Your task to perform on an android device: What is the recent news? Image 0: 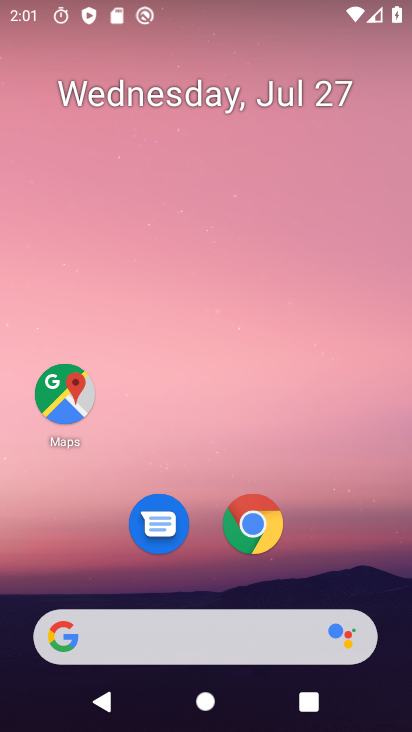
Step 0: drag from (220, 484) to (267, 27)
Your task to perform on an android device: What is the recent news? Image 1: 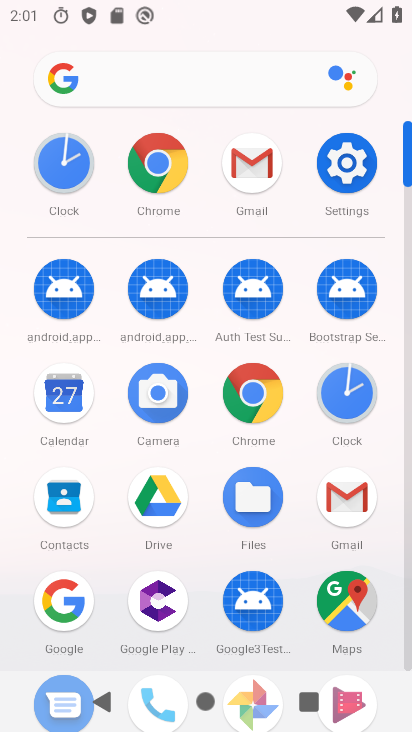
Step 1: press home button
Your task to perform on an android device: What is the recent news? Image 2: 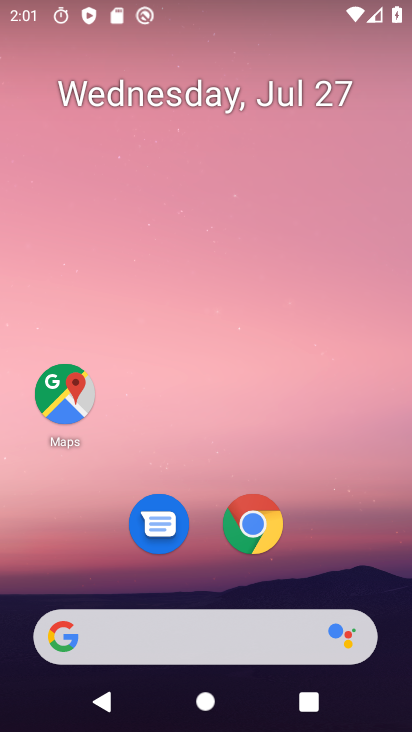
Step 2: click (190, 641)
Your task to perform on an android device: What is the recent news? Image 3: 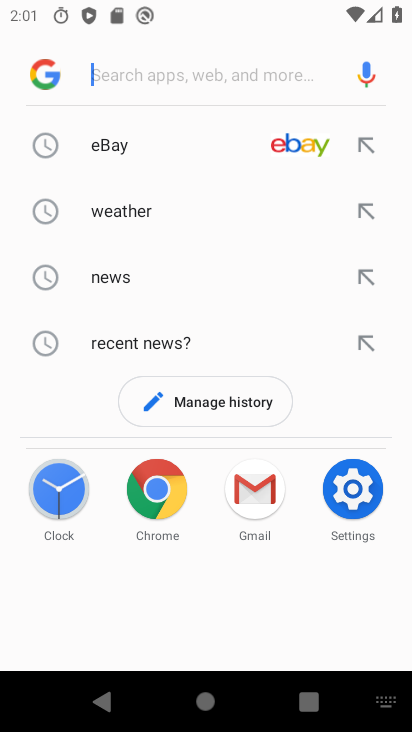
Step 3: click (115, 340)
Your task to perform on an android device: What is the recent news? Image 4: 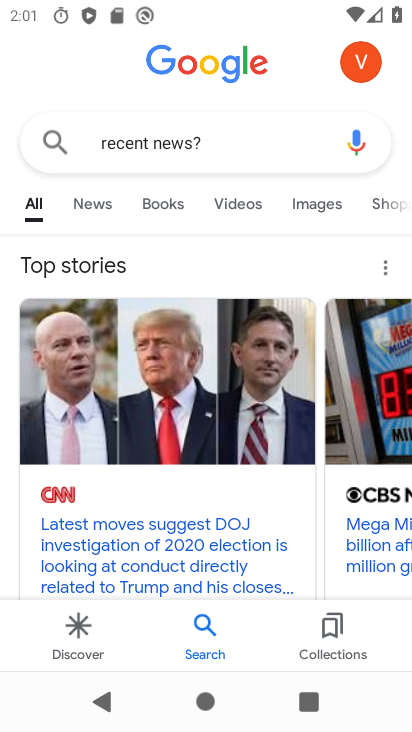
Step 4: drag from (168, 489) to (168, 363)
Your task to perform on an android device: What is the recent news? Image 5: 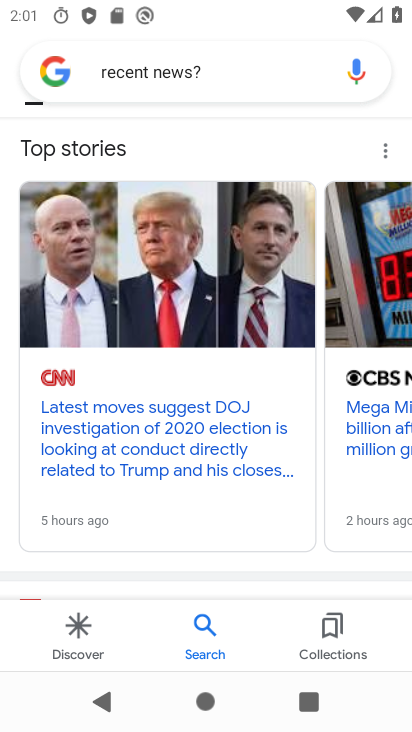
Step 5: drag from (246, 418) to (70, 446)
Your task to perform on an android device: What is the recent news? Image 6: 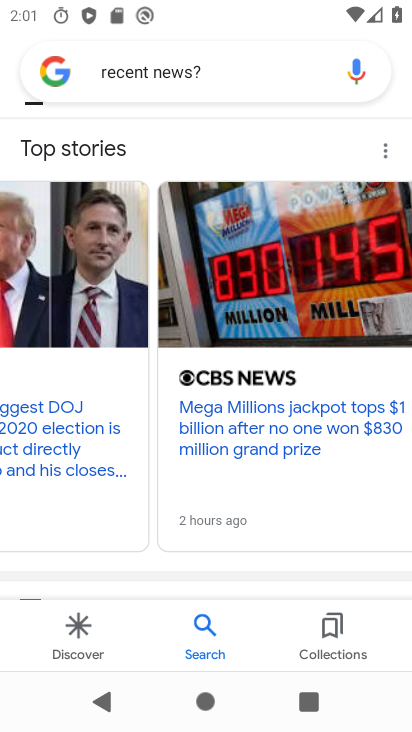
Step 6: drag from (341, 431) to (63, 427)
Your task to perform on an android device: What is the recent news? Image 7: 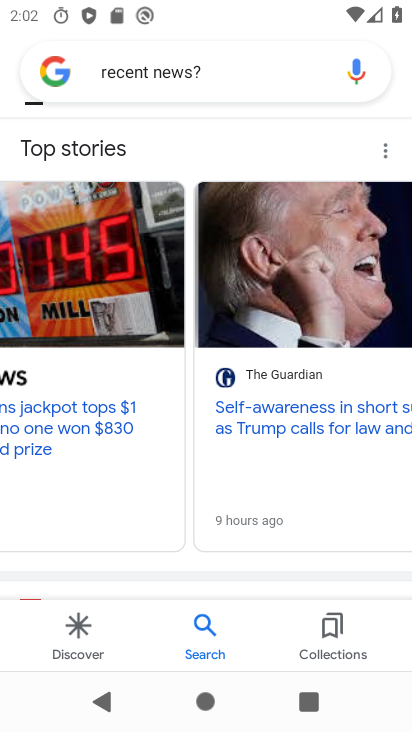
Step 7: drag from (338, 451) to (131, 467)
Your task to perform on an android device: What is the recent news? Image 8: 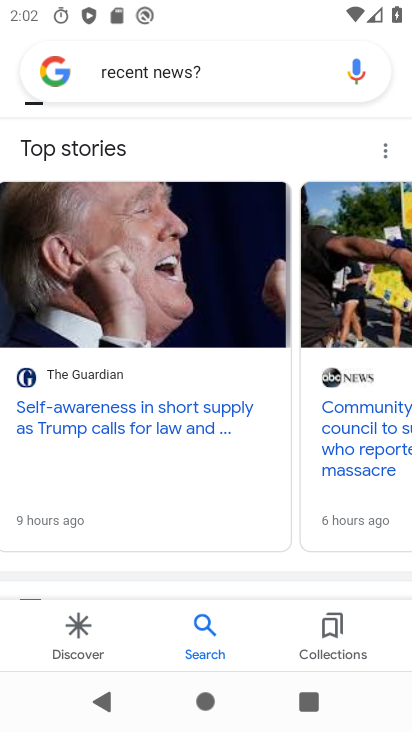
Step 8: click (151, 418)
Your task to perform on an android device: What is the recent news? Image 9: 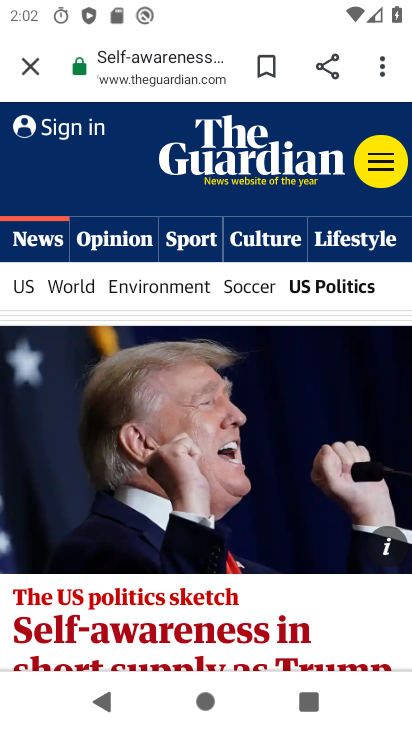
Step 9: drag from (187, 575) to (233, 284)
Your task to perform on an android device: What is the recent news? Image 10: 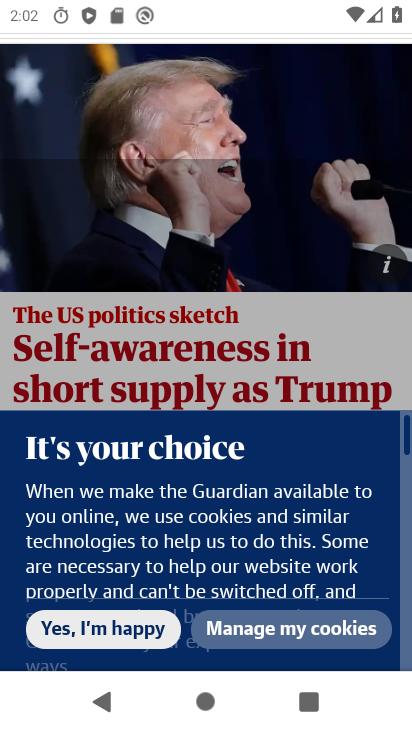
Step 10: click (150, 626)
Your task to perform on an android device: What is the recent news? Image 11: 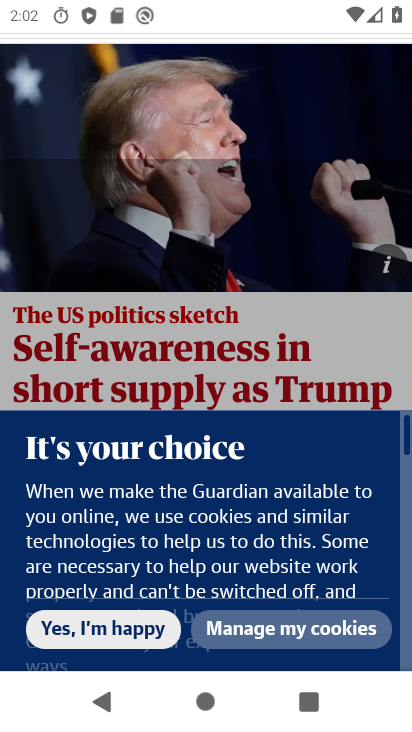
Step 11: click (162, 632)
Your task to perform on an android device: What is the recent news? Image 12: 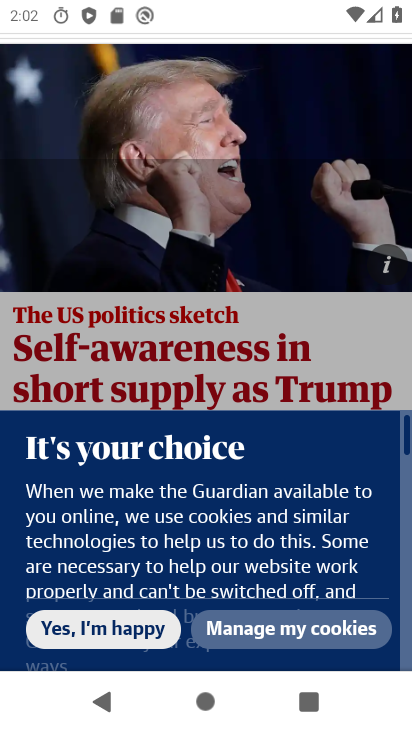
Step 12: click (121, 630)
Your task to perform on an android device: What is the recent news? Image 13: 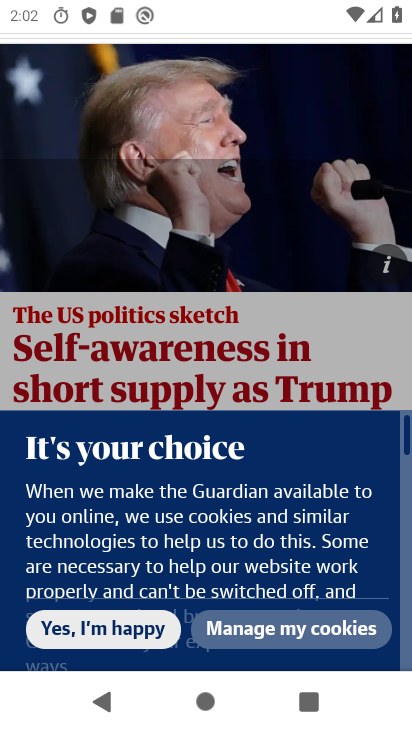
Step 13: click (271, 624)
Your task to perform on an android device: What is the recent news? Image 14: 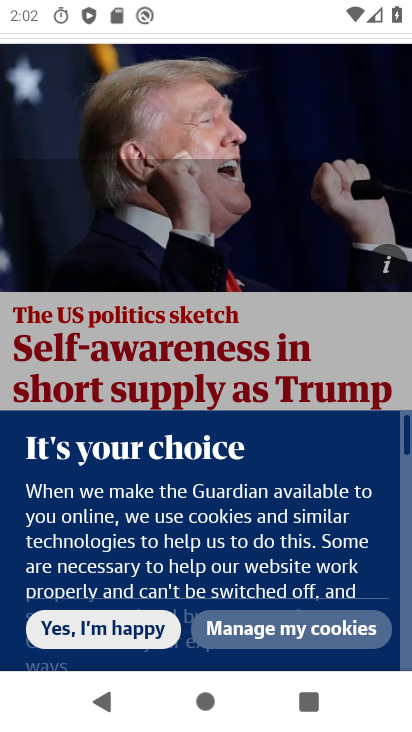
Step 14: drag from (303, 326) to (339, 98)
Your task to perform on an android device: What is the recent news? Image 15: 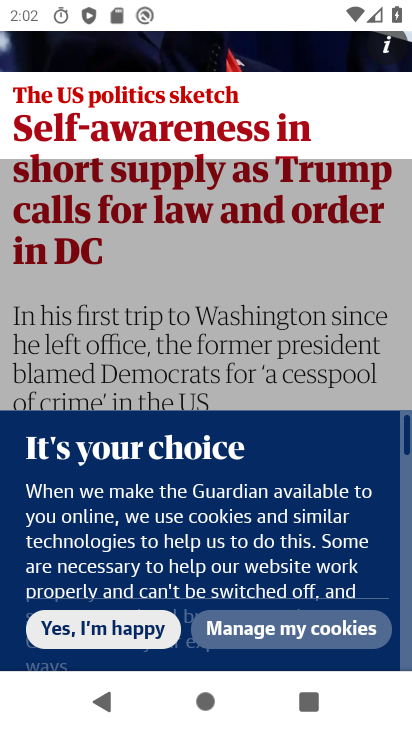
Step 15: drag from (408, 445) to (408, 526)
Your task to perform on an android device: What is the recent news? Image 16: 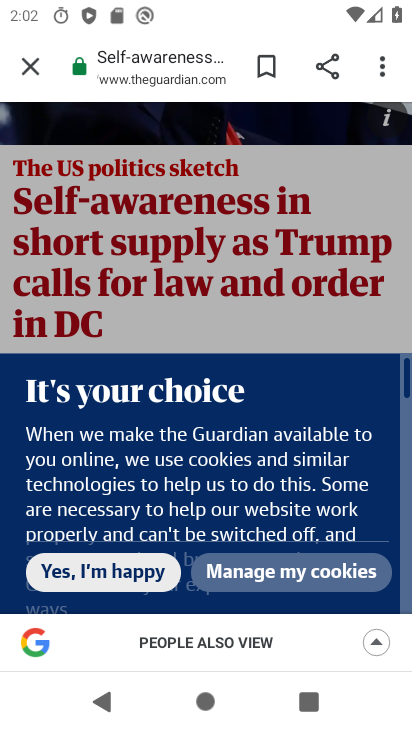
Step 16: drag from (210, 491) to (256, 265)
Your task to perform on an android device: What is the recent news? Image 17: 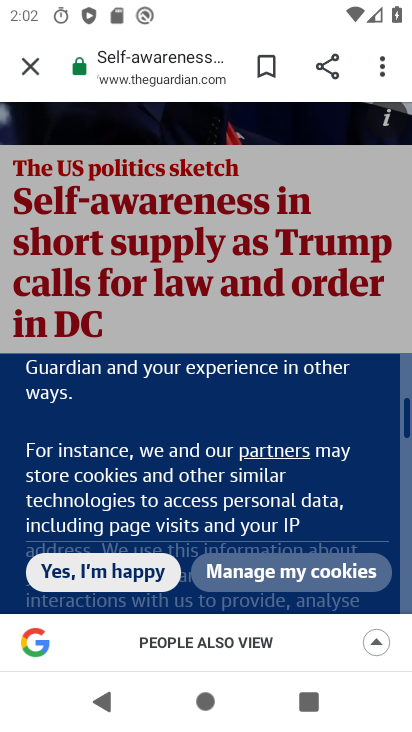
Step 17: drag from (201, 457) to (226, 315)
Your task to perform on an android device: What is the recent news? Image 18: 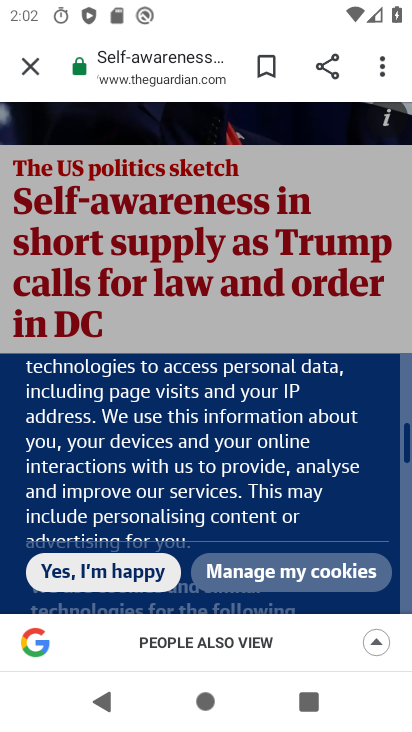
Step 18: click (135, 568)
Your task to perform on an android device: What is the recent news? Image 19: 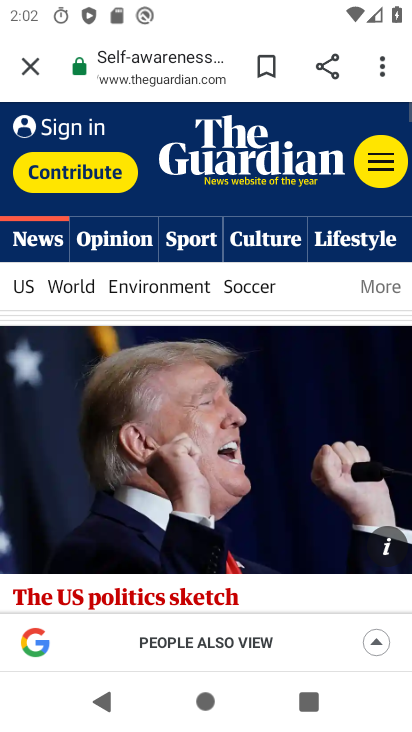
Step 19: task complete